Your task to perform on an android device: Go to battery settings Image 0: 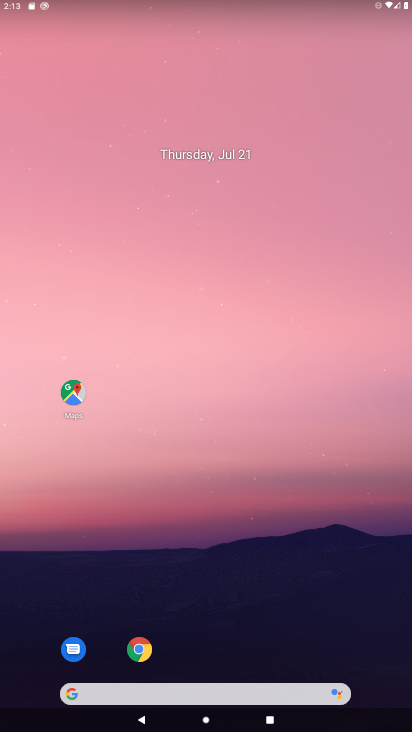
Step 0: drag from (275, 159) to (314, 16)
Your task to perform on an android device: Go to battery settings Image 1: 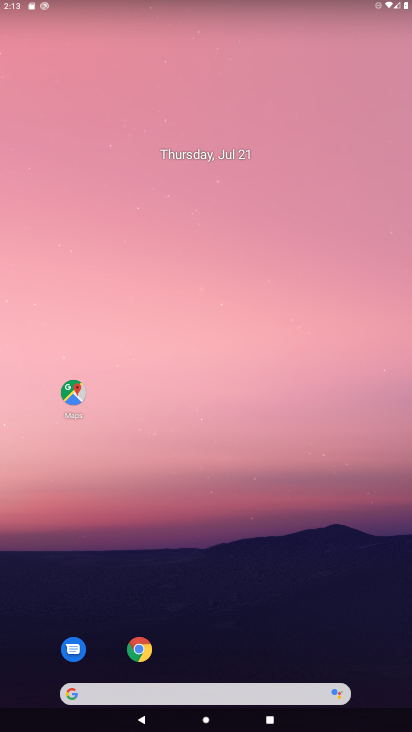
Step 1: drag from (325, 555) to (381, 20)
Your task to perform on an android device: Go to battery settings Image 2: 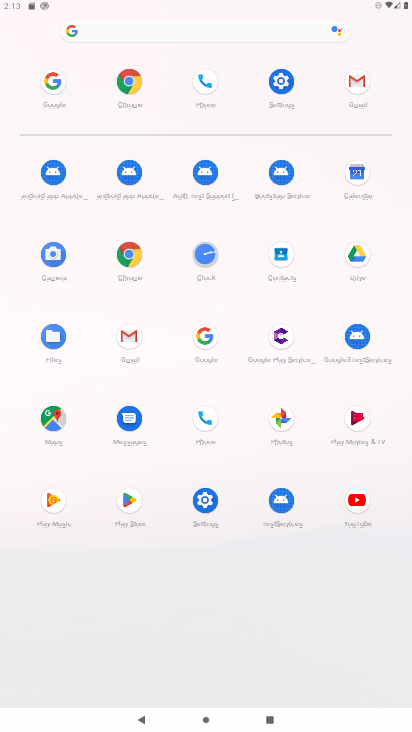
Step 2: click (283, 92)
Your task to perform on an android device: Go to battery settings Image 3: 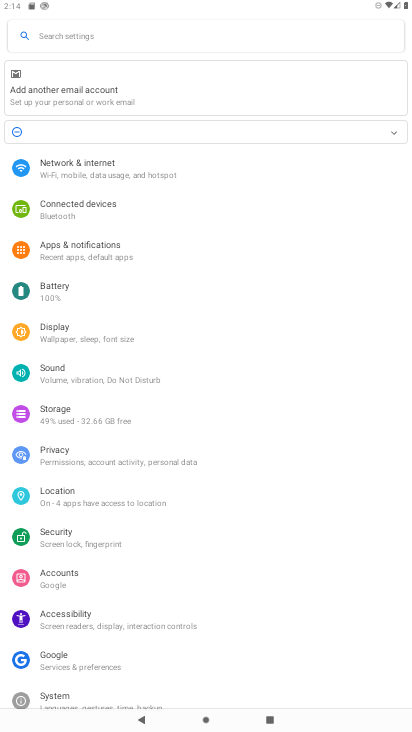
Step 3: click (52, 295)
Your task to perform on an android device: Go to battery settings Image 4: 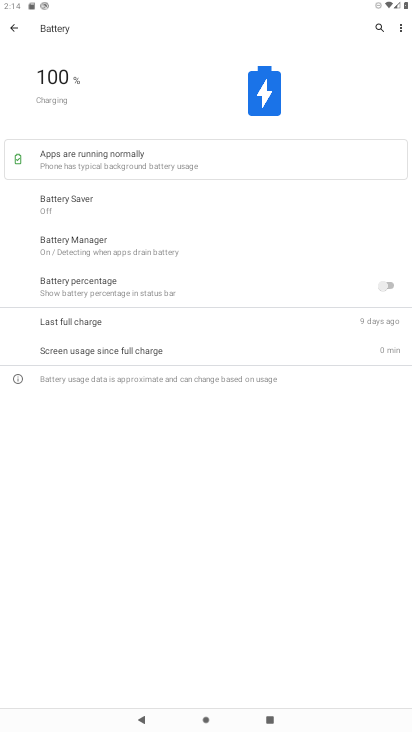
Step 4: task complete